Your task to perform on an android device: Is it going to rain today? Image 0: 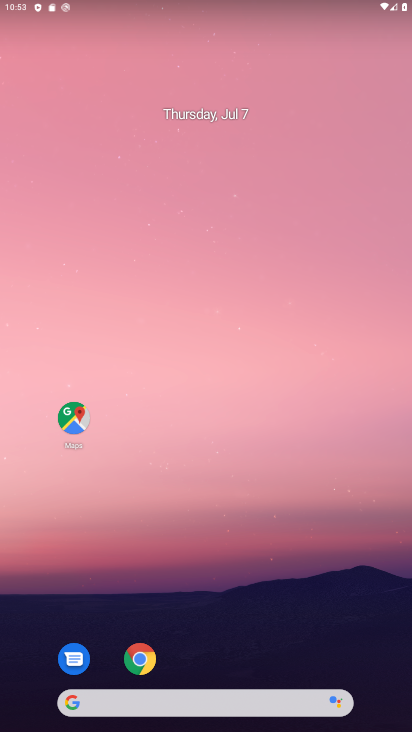
Step 0: click (221, 705)
Your task to perform on an android device: Is it going to rain today? Image 1: 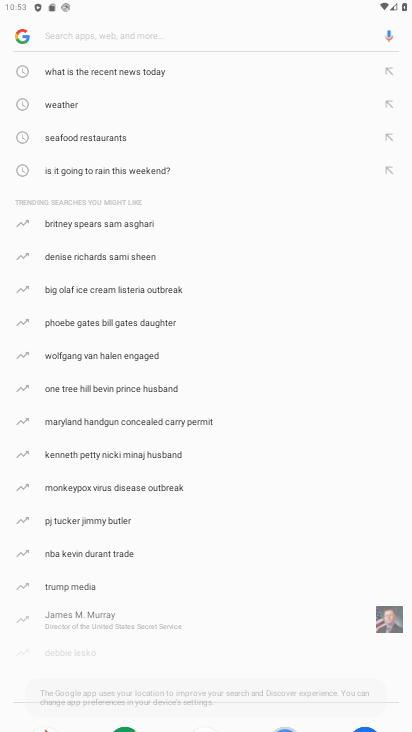
Step 1: type "Is it going to rain today?"
Your task to perform on an android device: Is it going to rain today? Image 2: 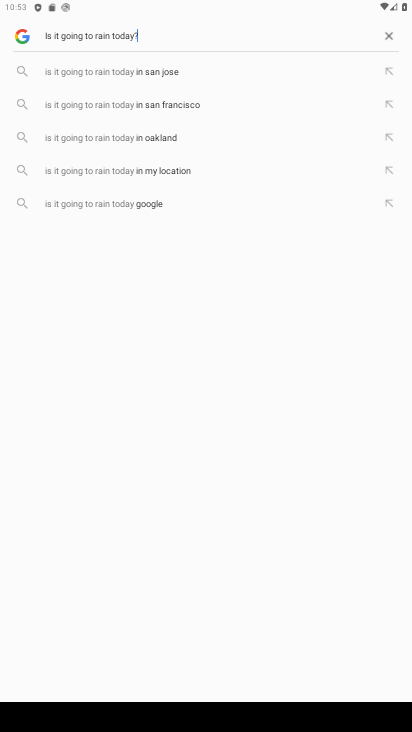
Step 2: click (176, 76)
Your task to perform on an android device: Is it going to rain today? Image 3: 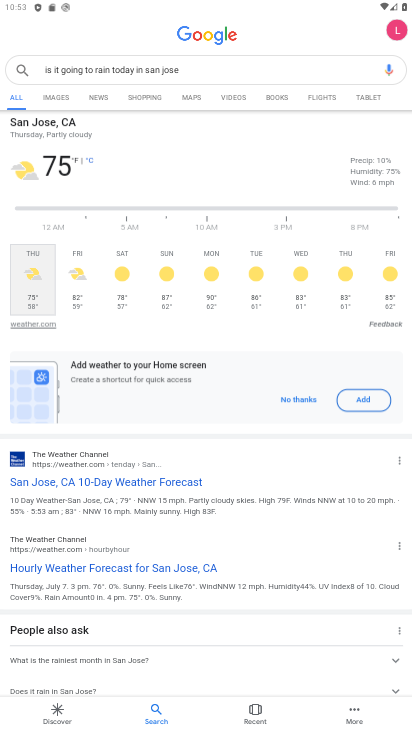
Step 3: task complete